Your task to perform on an android device: turn off location history Image 0: 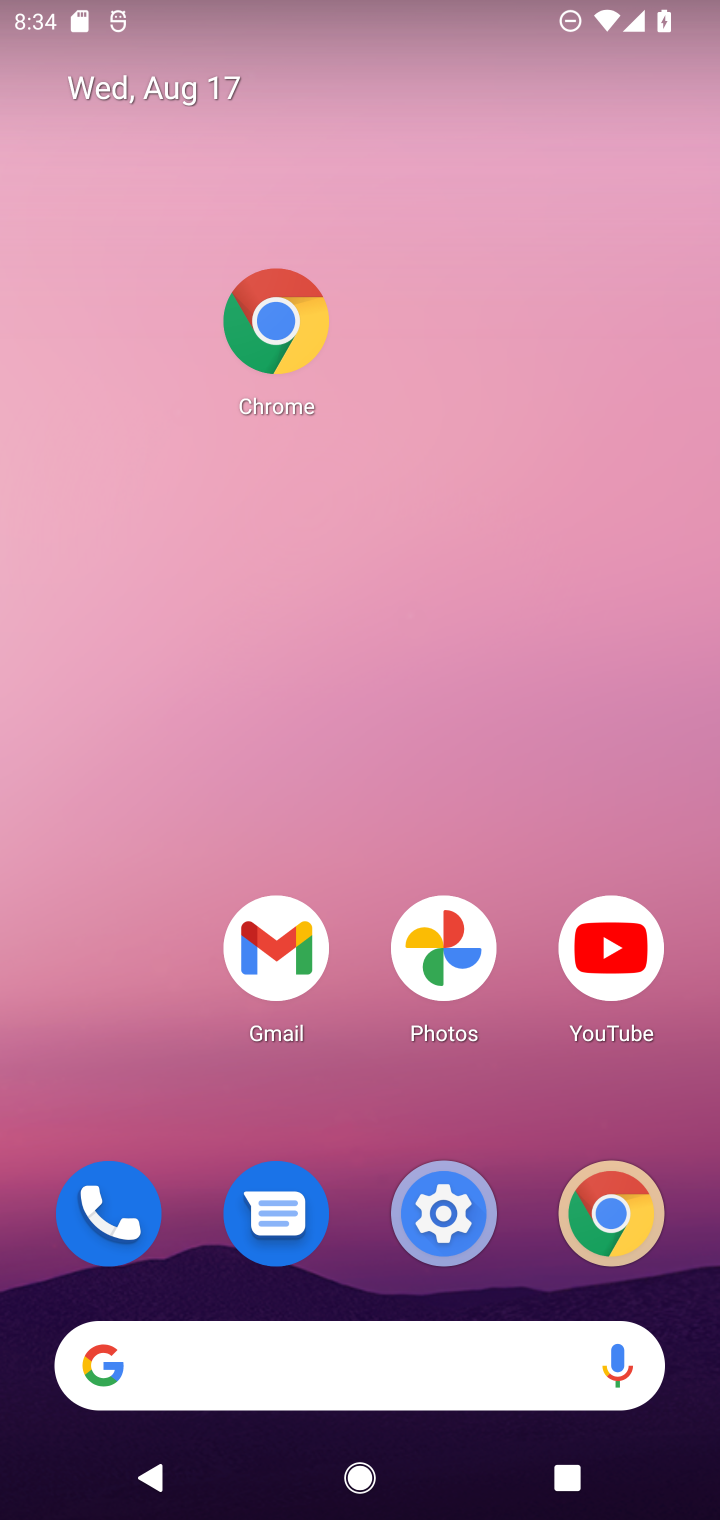
Step 0: click (452, 1281)
Your task to perform on an android device: turn off location history Image 1: 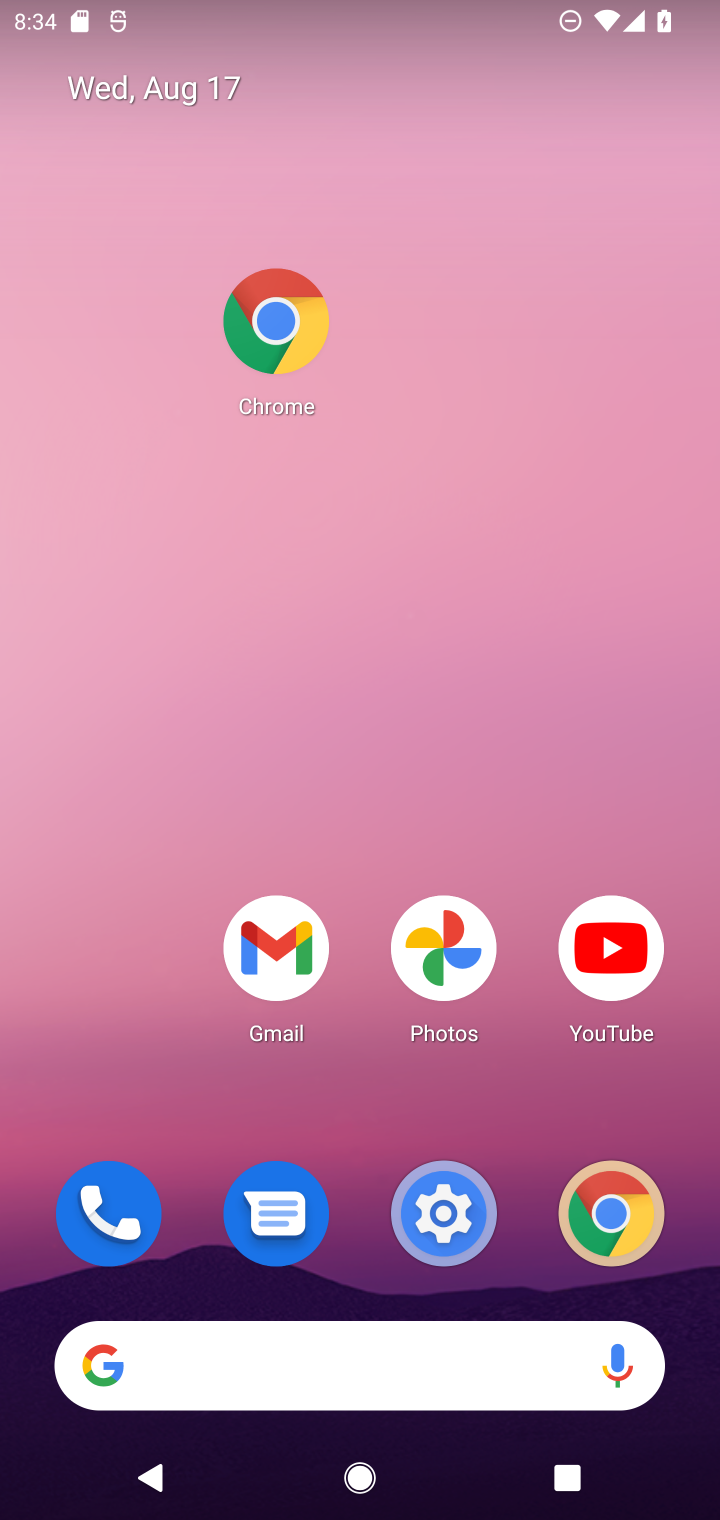
Step 1: click (431, 1194)
Your task to perform on an android device: turn off location history Image 2: 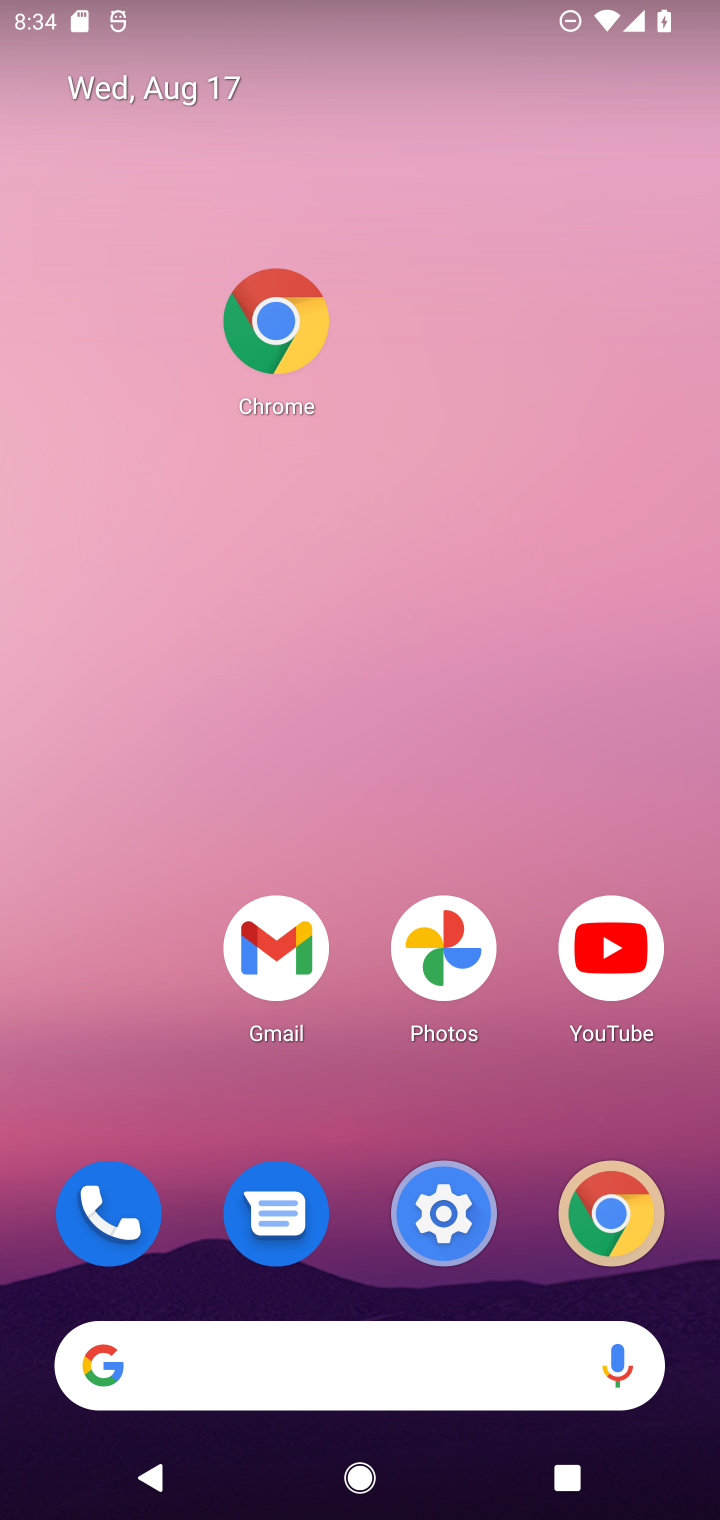
Step 2: click (431, 1194)
Your task to perform on an android device: turn off location history Image 3: 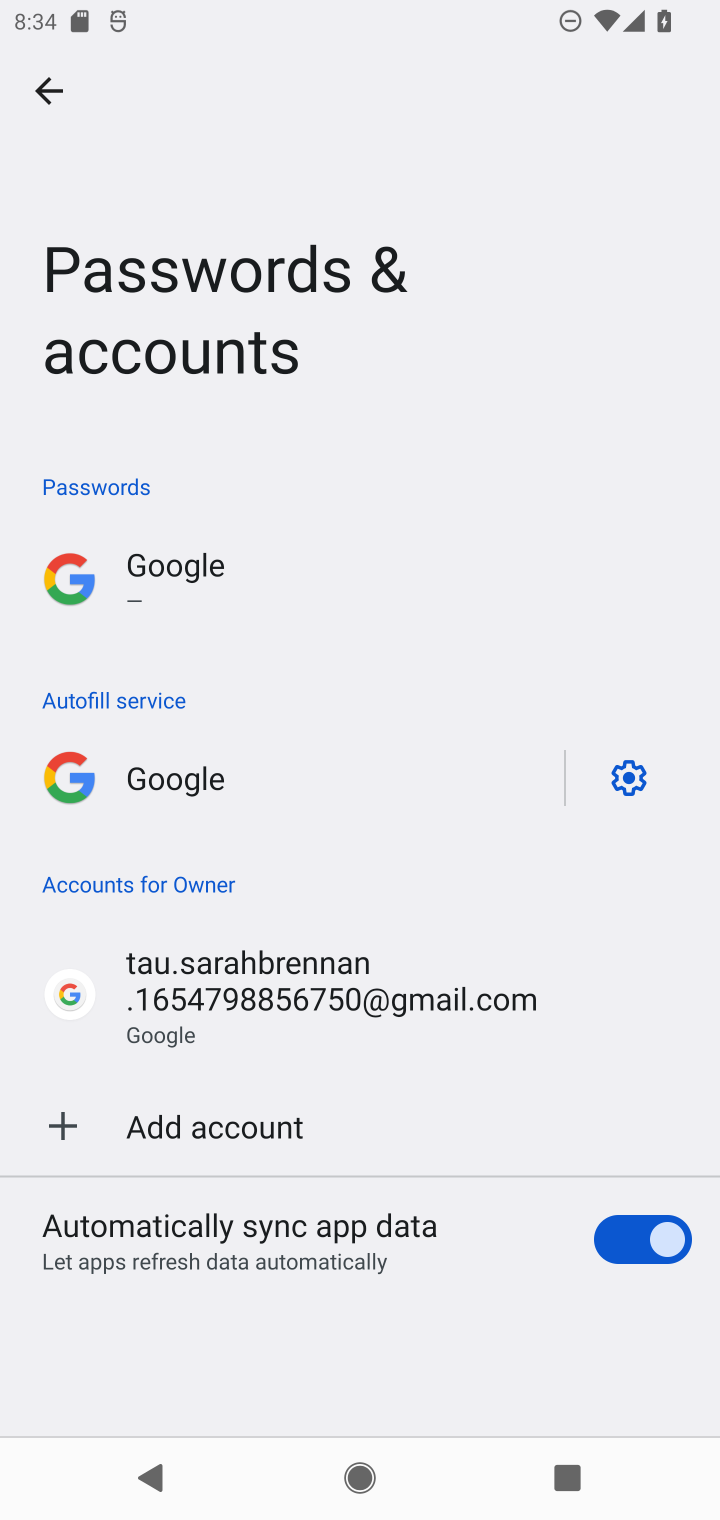
Step 3: task complete